Your task to perform on an android device: see sites visited before in the chrome app Image 0: 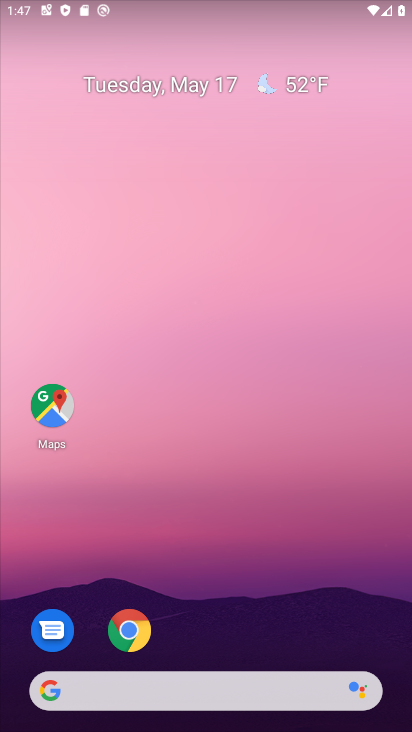
Step 0: click (126, 636)
Your task to perform on an android device: see sites visited before in the chrome app Image 1: 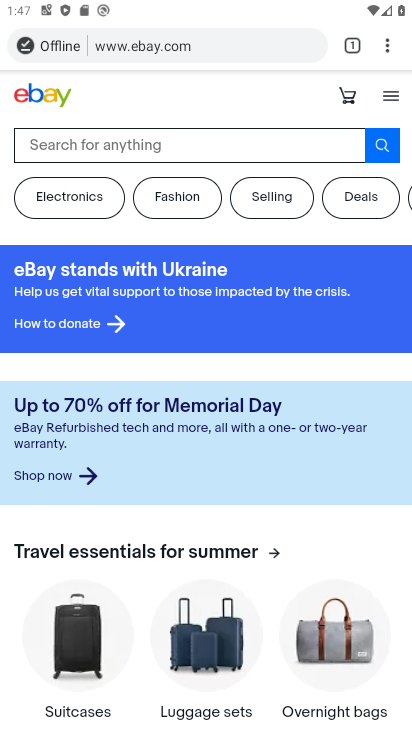
Step 1: task complete